Your task to perform on an android device: change alarm snooze length Image 0: 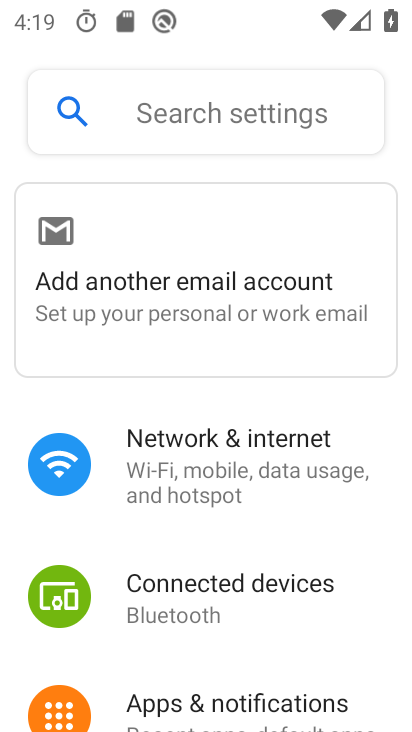
Step 0: press back button
Your task to perform on an android device: change alarm snooze length Image 1: 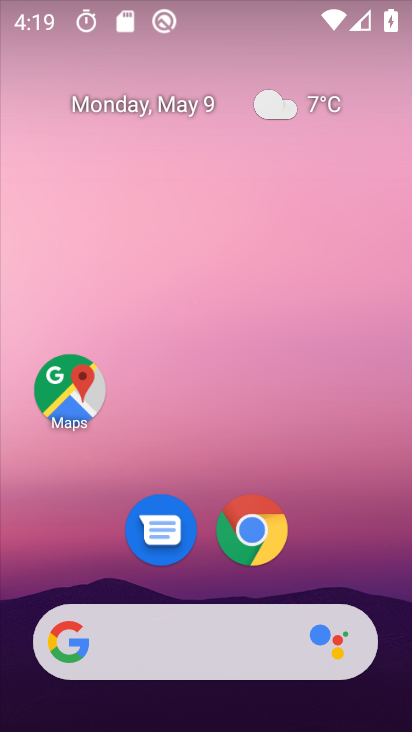
Step 1: drag from (173, 583) to (292, 86)
Your task to perform on an android device: change alarm snooze length Image 2: 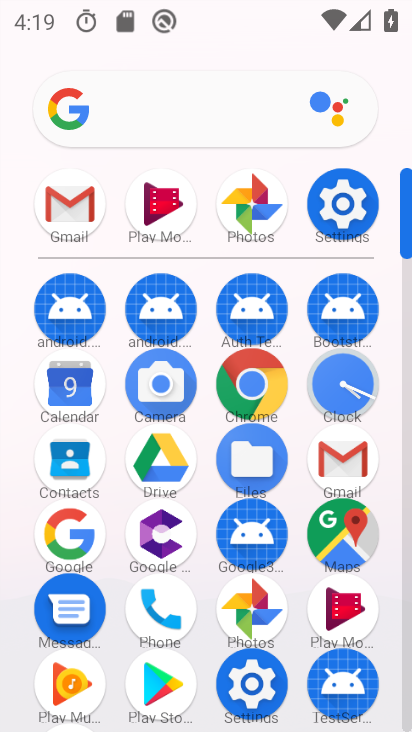
Step 2: click (350, 390)
Your task to perform on an android device: change alarm snooze length Image 3: 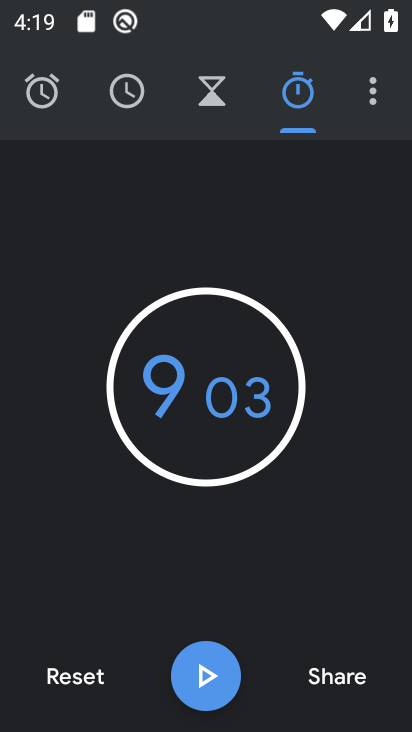
Step 3: click (367, 90)
Your task to perform on an android device: change alarm snooze length Image 4: 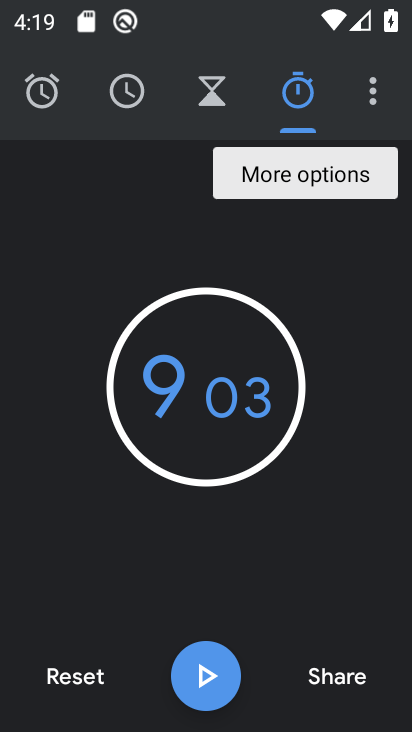
Step 4: click (364, 90)
Your task to perform on an android device: change alarm snooze length Image 5: 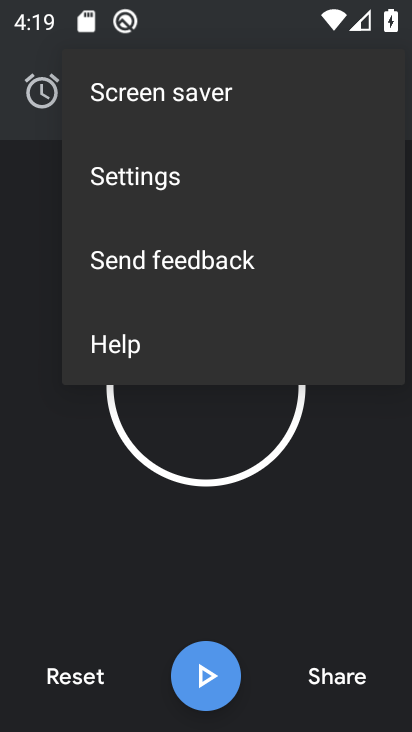
Step 5: click (140, 175)
Your task to perform on an android device: change alarm snooze length Image 6: 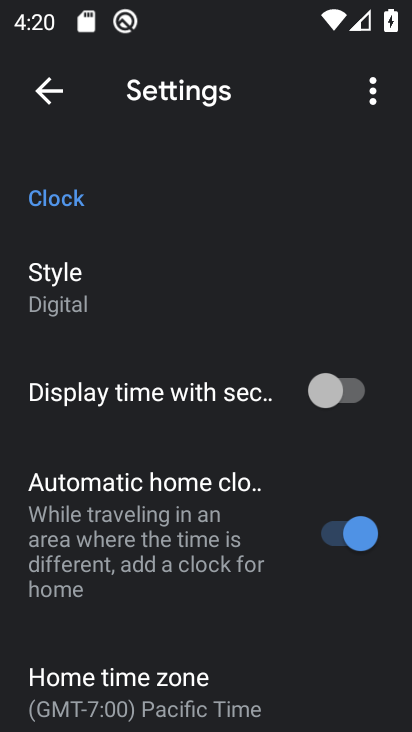
Step 6: drag from (99, 685) to (248, 164)
Your task to perform on an android device: change alarm snooze length Image 7: 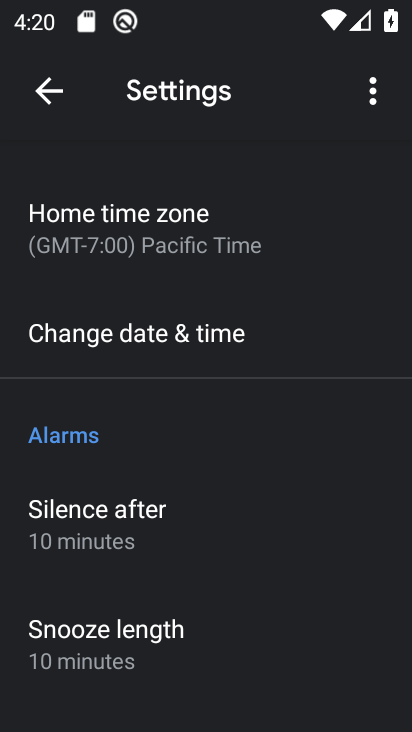
Step 7: click (93, 652)
Your task to perform on an android device: change alarm snooze length Image 8: 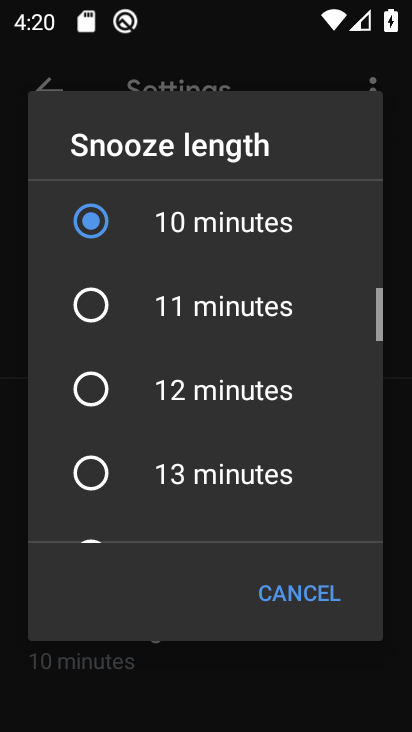
Step 8: click (225, 297)
Your task to perform on an android device: change alarm snooze length Image 9: 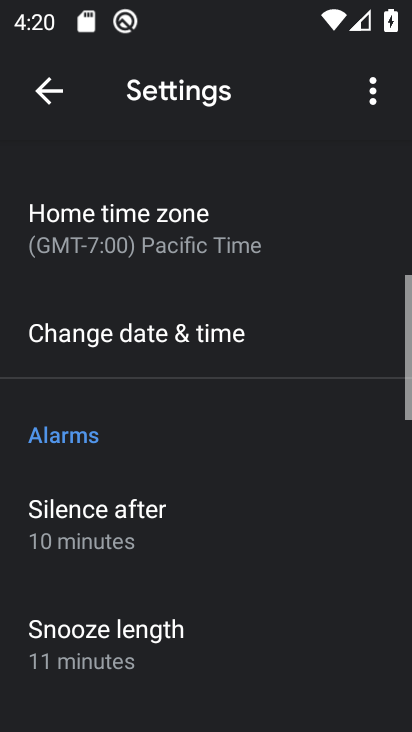
Step 9: task complete